Your task to perform on an android device: open device folders in google photos Image 0: 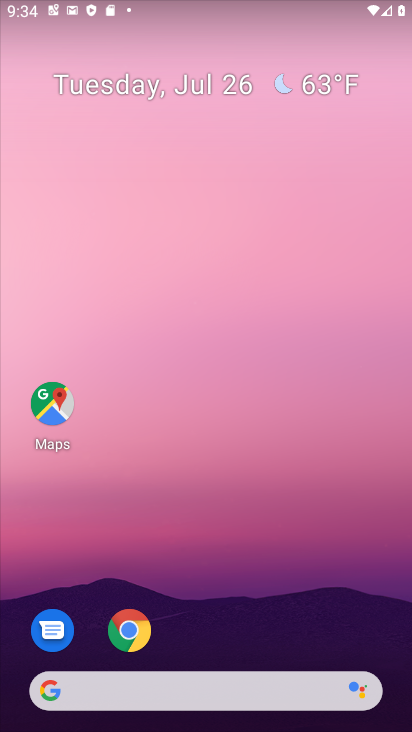
Step 0: press home button
Your task to perform on an android device: open device folders in google photos Image 1: 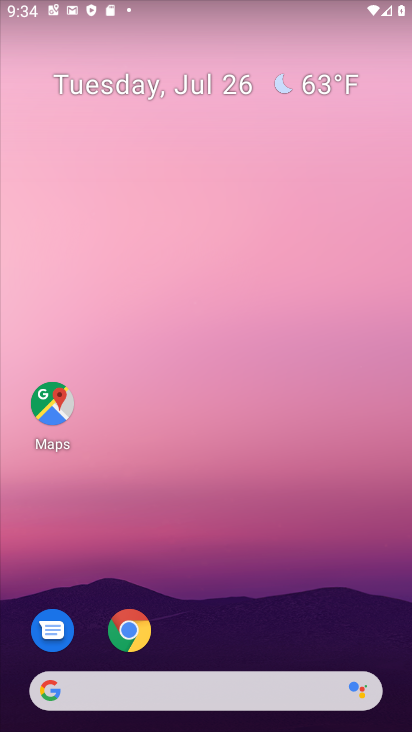
Step 1: drag from (205, 662) to (215, 4)
Your task to perform on an android device: open device folders in google photos Image 2: 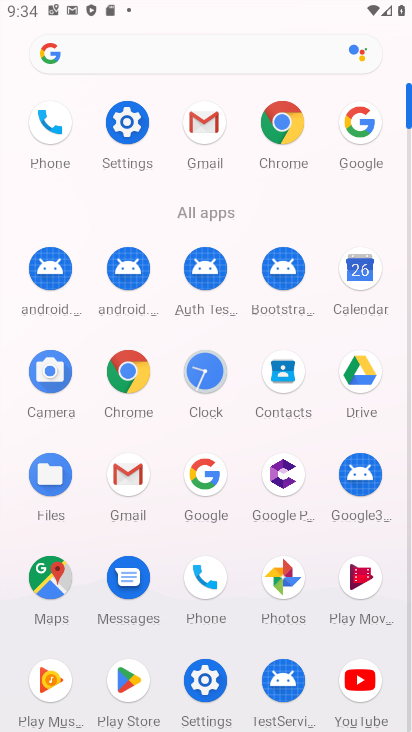
Step 2: click (281, 570)
Your task to perform on an android device: open device folders in google photos Image 3: 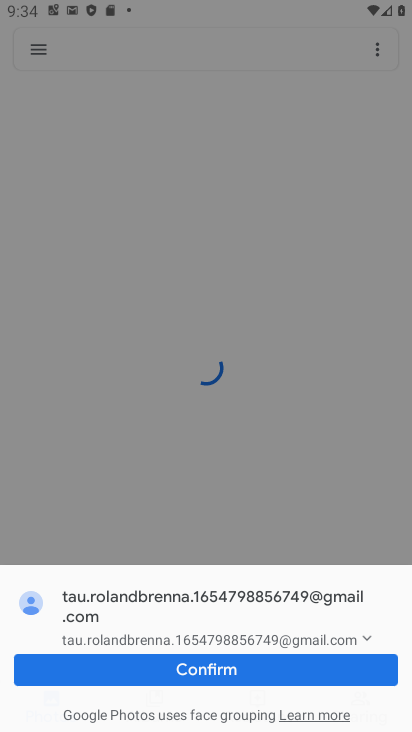
Step 3: click (32, 44)
Your task to perform on an android device: open device folders in google photos Image 4: 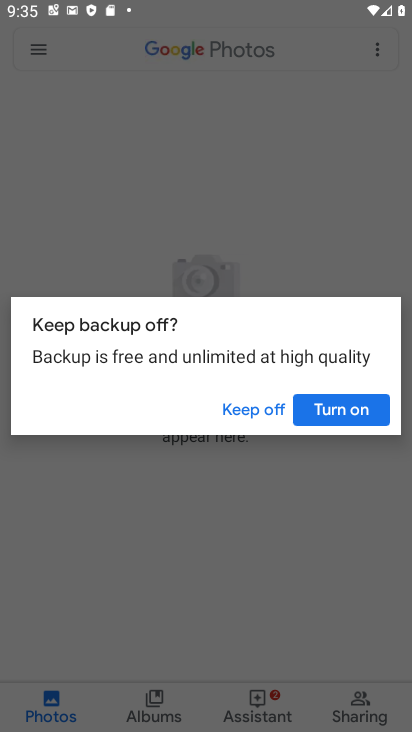
Step 4: click (255, 404)
Your task to perform on an android device: open device folders in google photos Image 5: 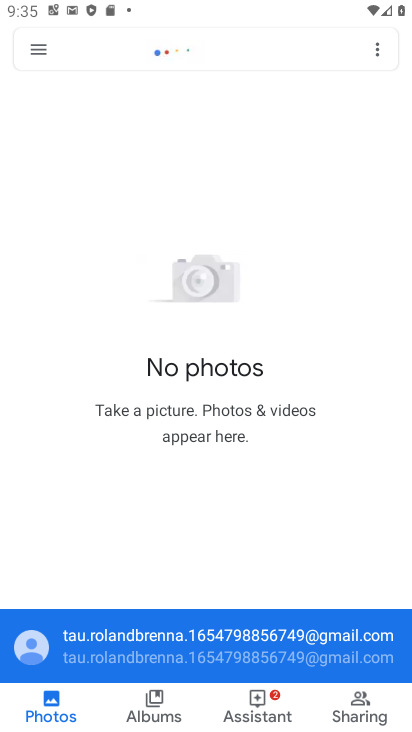
Step 5: click (45, 46)
Your task to perform on an android device: open device folders in google photos Image 6: 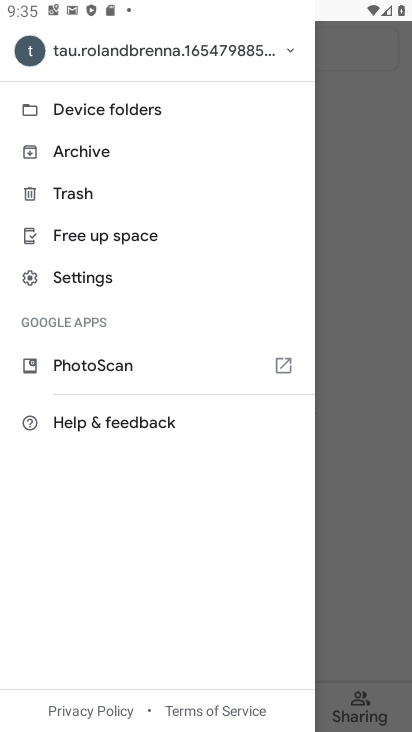
Step 6: click (148, 114)
Your task to perform on an android device: open device folders in google photos Image 7: 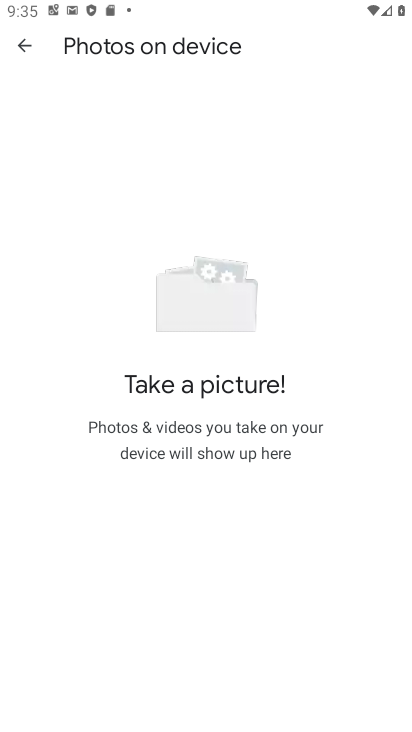
Step 7: task complete